Your task to perform on an android device: create a new album in the google photos Image 0: 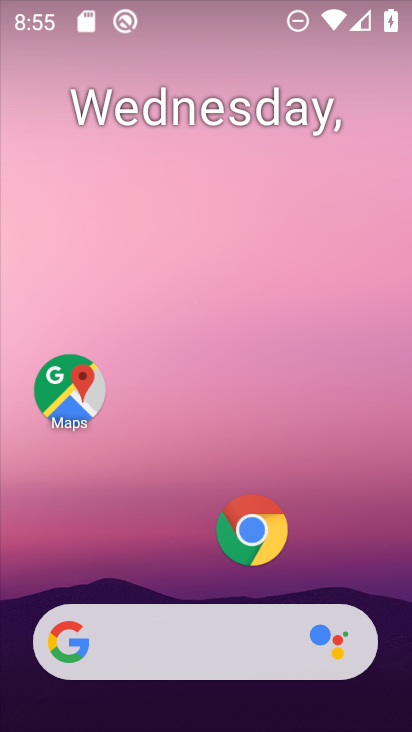
Step 0: drag from (159, 586) to (284, 84)
Your task to perform on an android device: create a new album in the google photos Image 1: 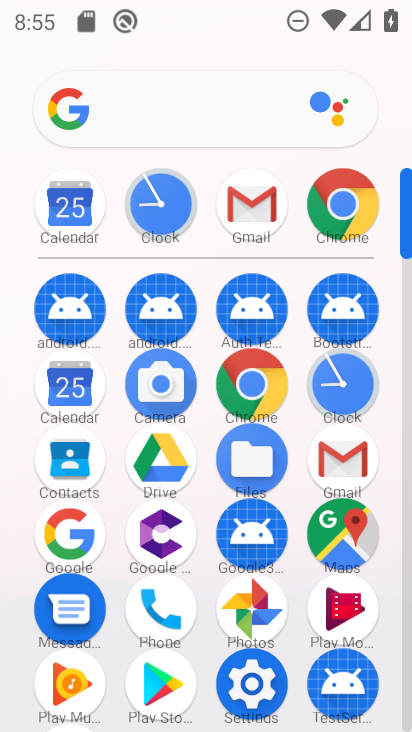
Step 1: click (260, 606)
Your task to perform on an android device: create a new album in the google photos Image 2: 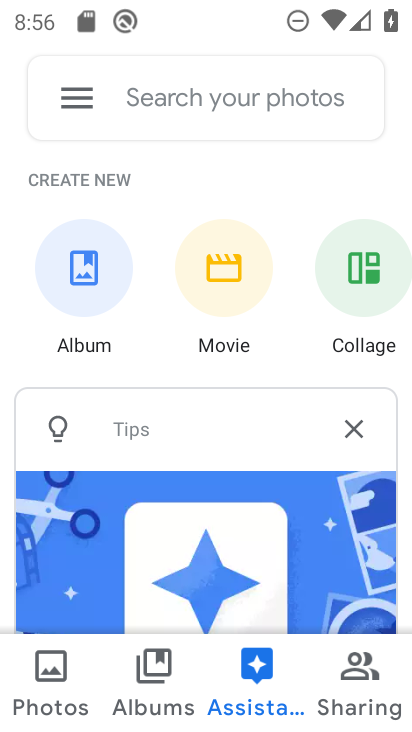
Step 2: click (154, 683)
Your task to perform on an android device: create a new album in the google photos Image 3: 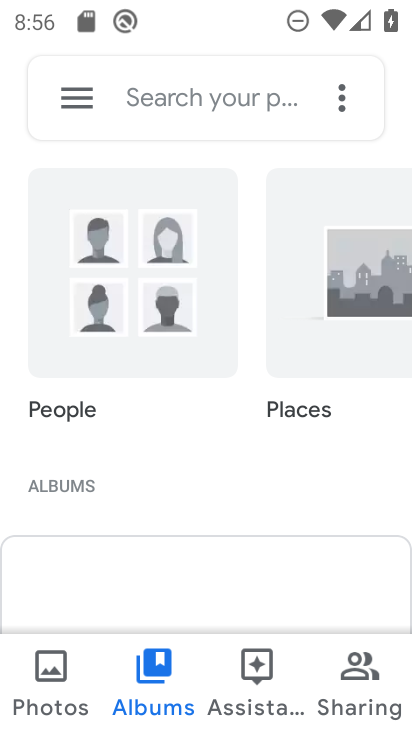
Step 3: click (358, 90)
Your task to perform on an android device: create a new album in the google photos Image 4: 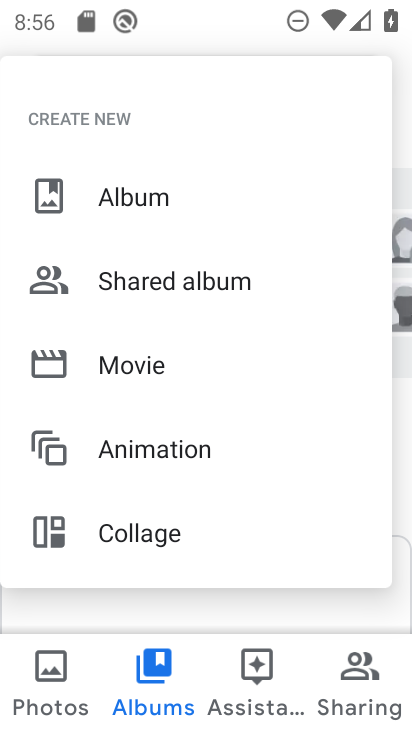
Step 4: click (171, 197)
Your task to perform on an android device: create a new album in the google photos Image 5: 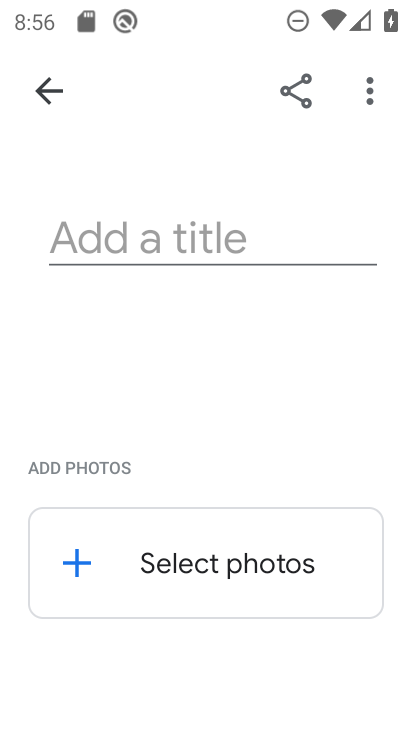
Step 5: click (132, 231)
Your task to perform on an android device: create a new album in the google photos Image 6: 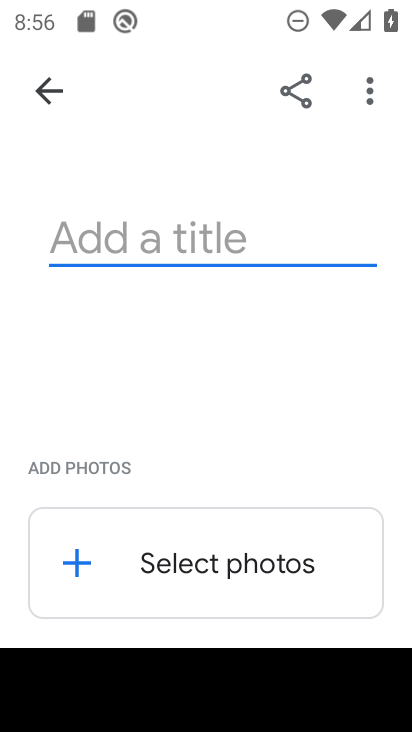
Step 6: type "vhvh"
Your task to perform on an android device: create a new album in the google photos Image 7: 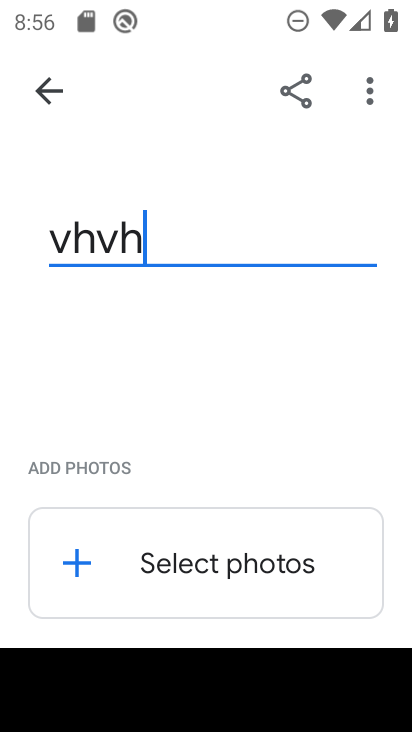
Step 7: click (210, 549)
Your task to perform on an android device: create a new album in the google photos Image 8: 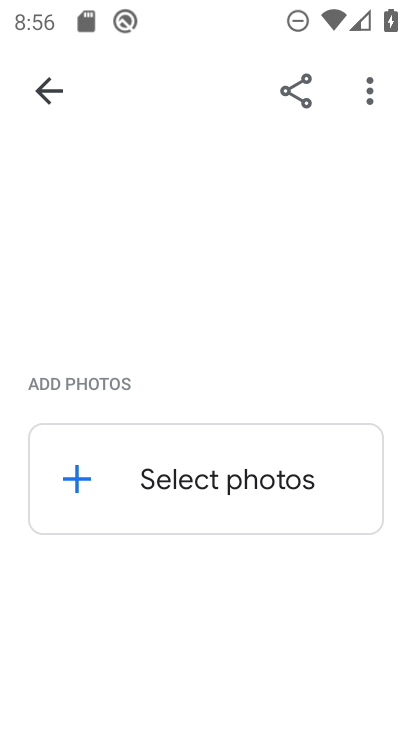
Step 8: click (206, 476)
Your task to perform on an android device: create a new album in the google photos Image 9: 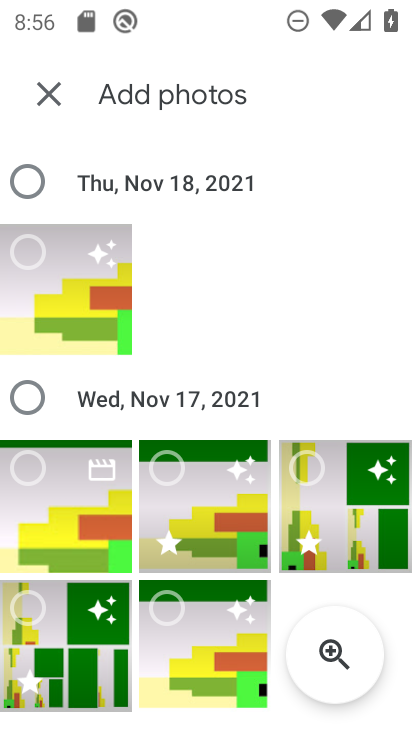
Step 9: click (28, 177)
Your task to perform on an android device: create a new album in the google photos Image 10: 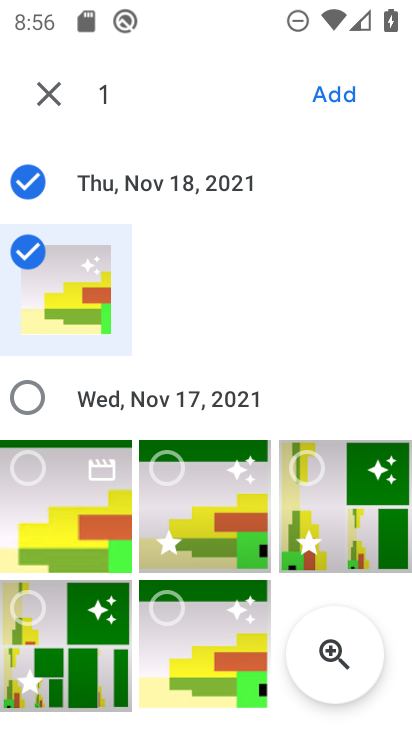
Step 10: click (26, 410)
Your task to perform on an android device: create a new album in the google photos Image 11: 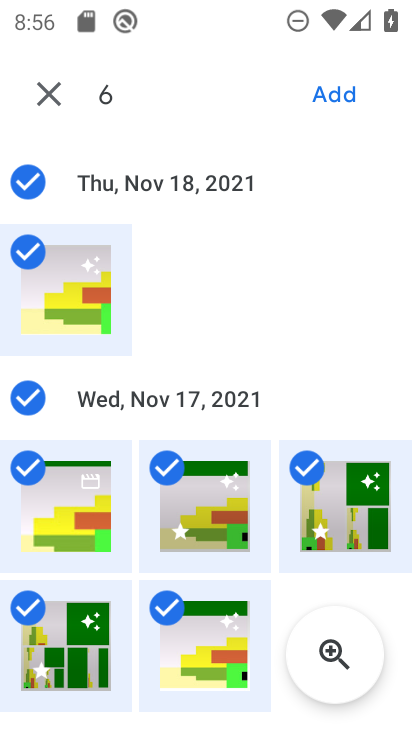
Step 11: click (340, 93)
Your task to perform on an android device: create a new album in the google photos Image 12: 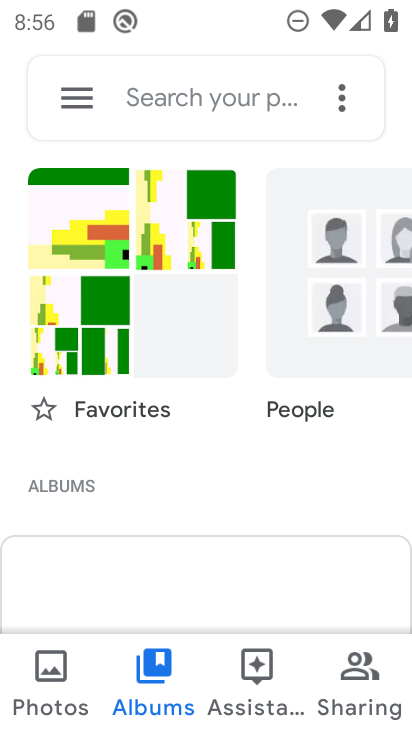
Step 12: task complete